Your task to perform on an android device: Play the new Drake video on YouTube Image 0: 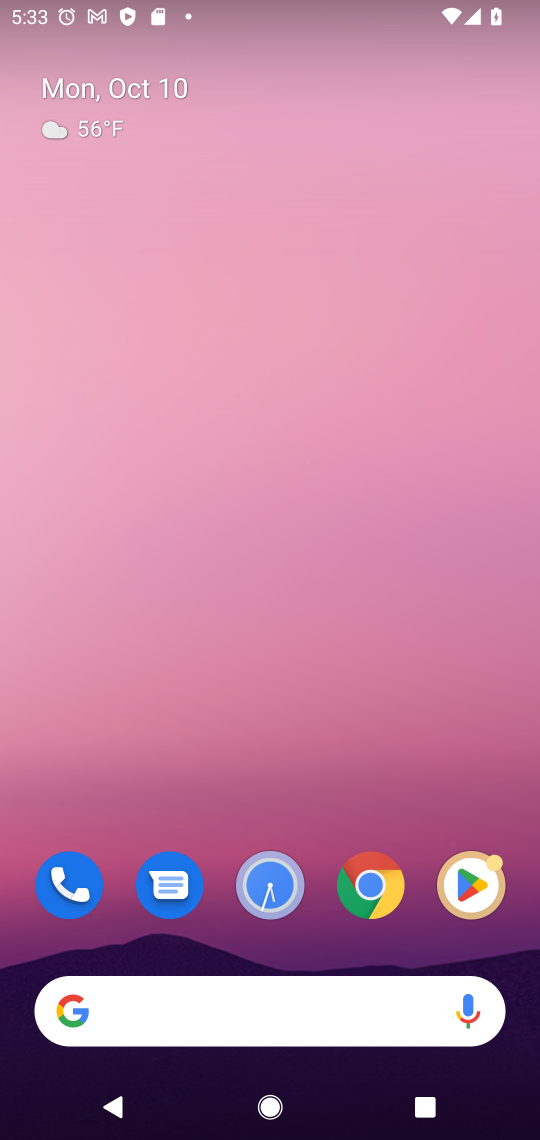
Step 0: click (191, 993)
Your task to perform on an android device: Play the new Drake video on YouTube Image 1: 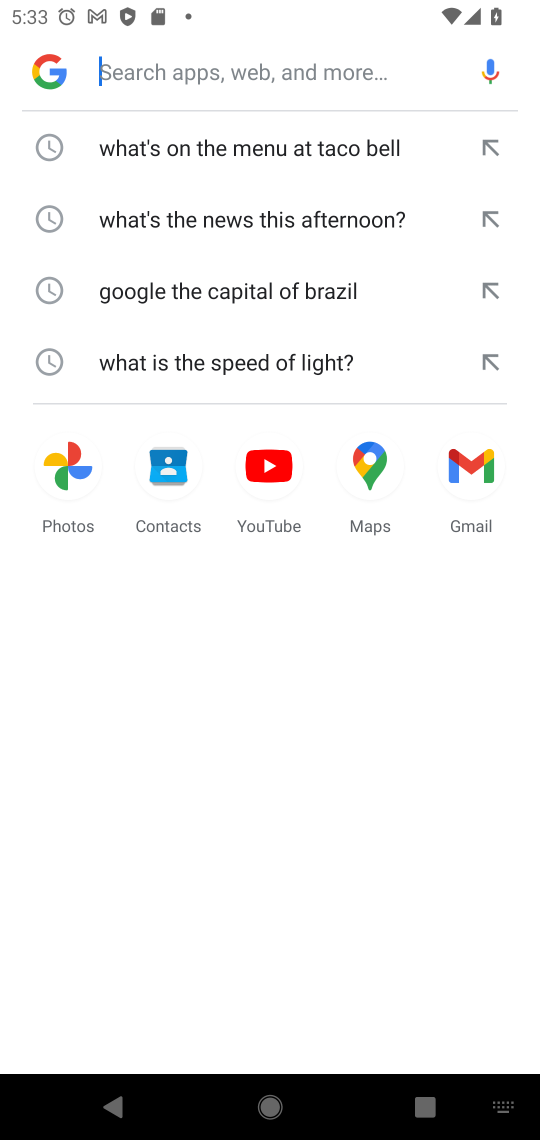
Step 1: click (276, 468)
Your task to perform on an android device: Play the new Drake video on YouTube Image 2: 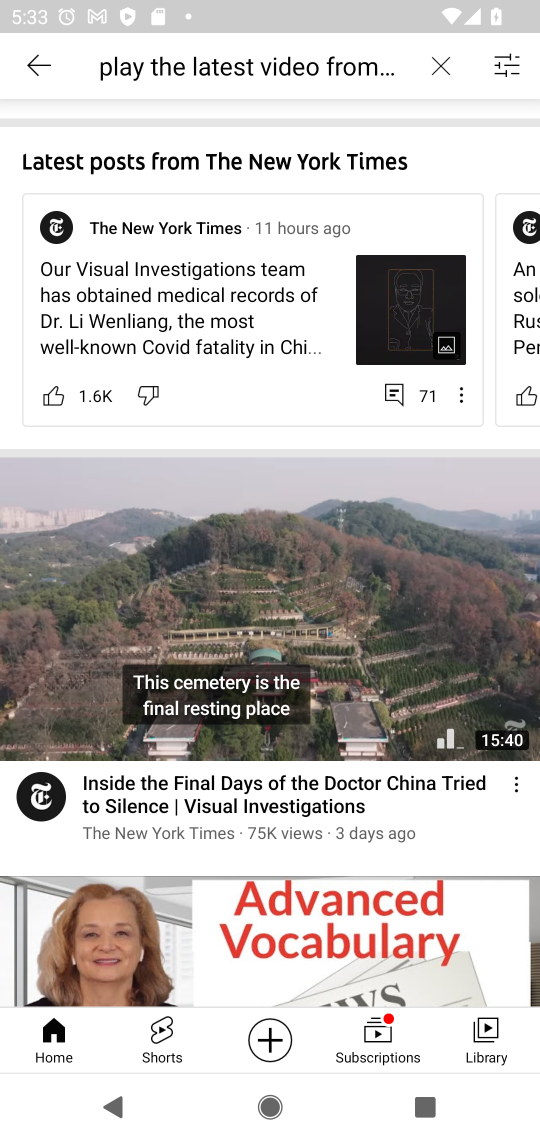
Step 2: click (440, 63)
Your task to perform on an android device: Play the new Drake video on YouTube Image 3: 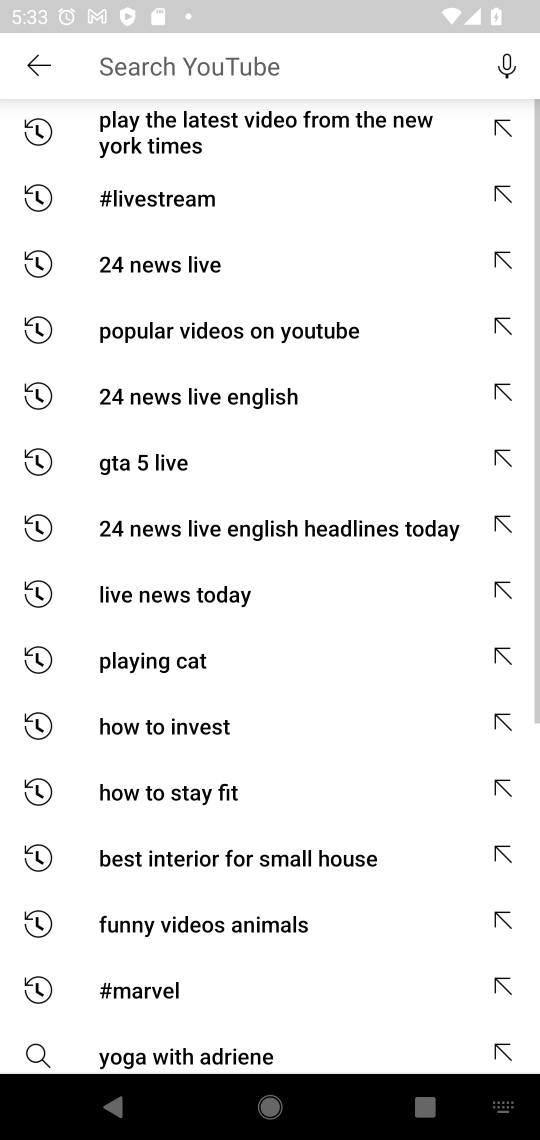
Step 3: click (386, 66)
Your task to perform on an android device: Play the new Drake video on YouTube Image 4: 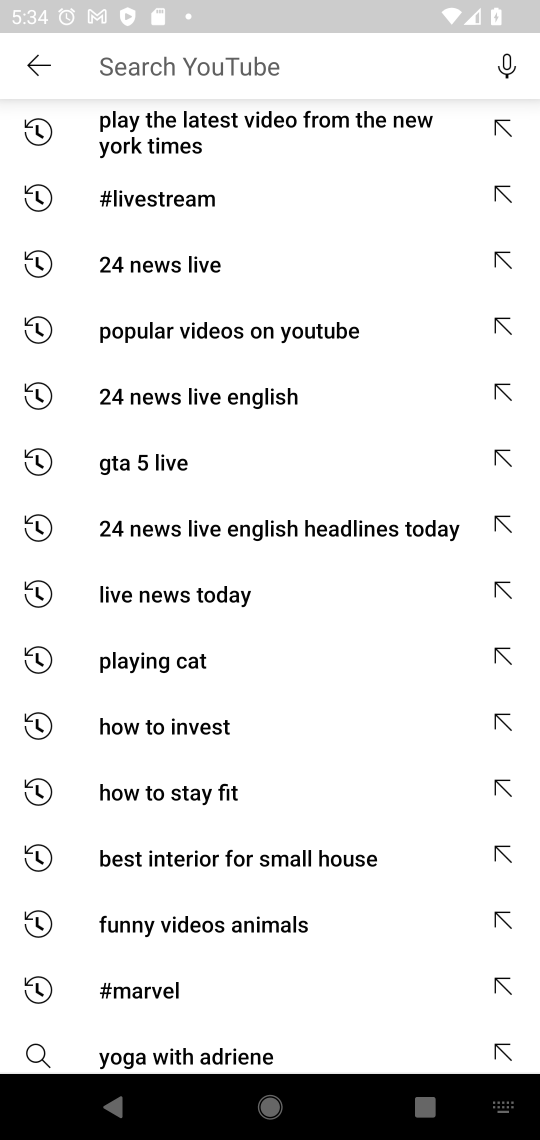
Step 4: type "Play the new Drake "
Your task to perform on an android device: Play the new Drake video on YouTube Image 5: 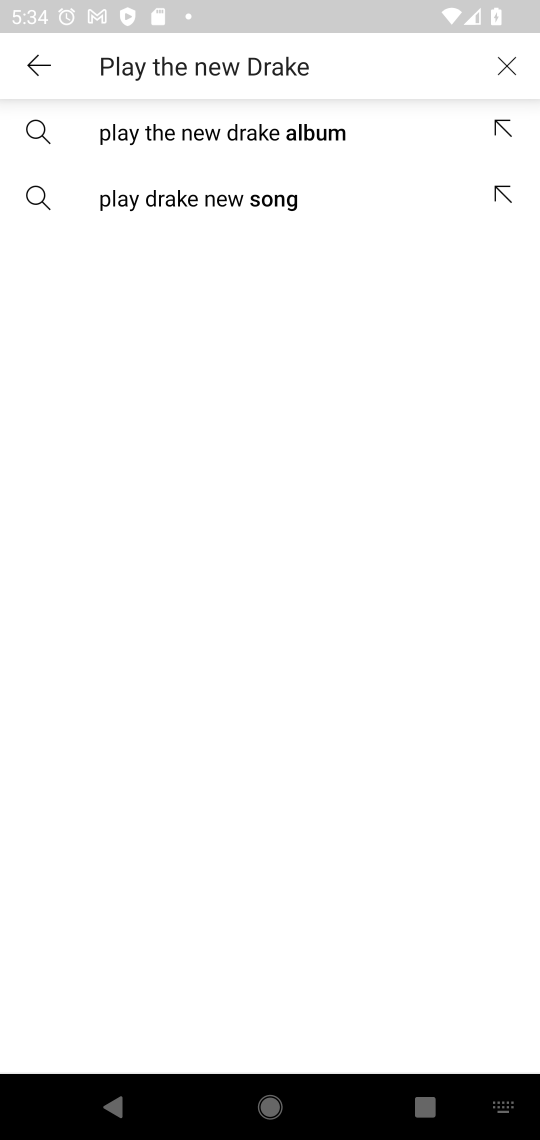
Step 5: click (186, 129)
Your task to perform on an android device: Play the new Drake video on YouTube Image 6: 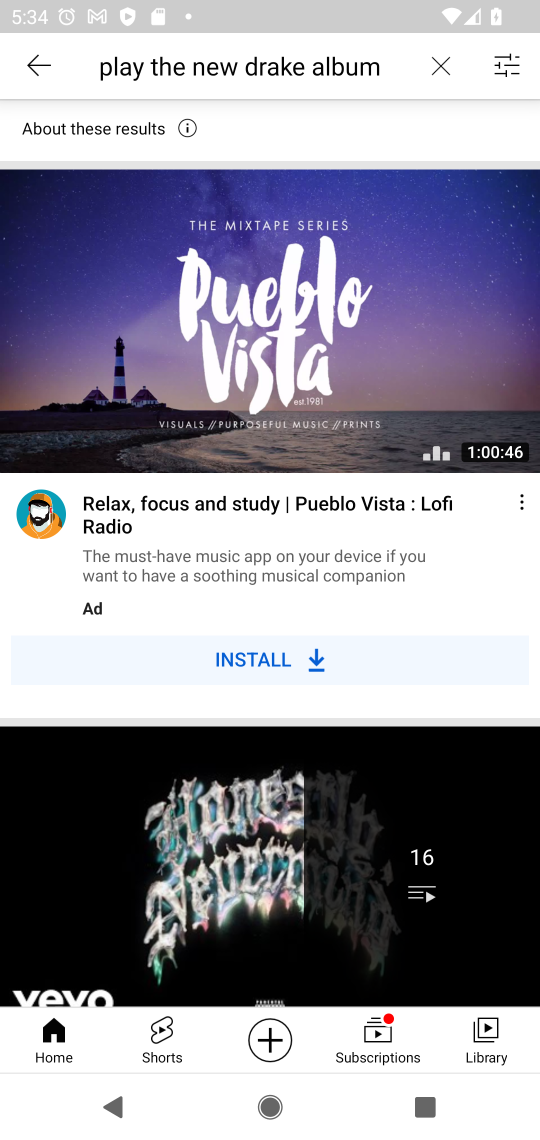
Step 6: click (268, 367)
Your task to perform on an android device: Play the new Drake video on YouTube Image 7: 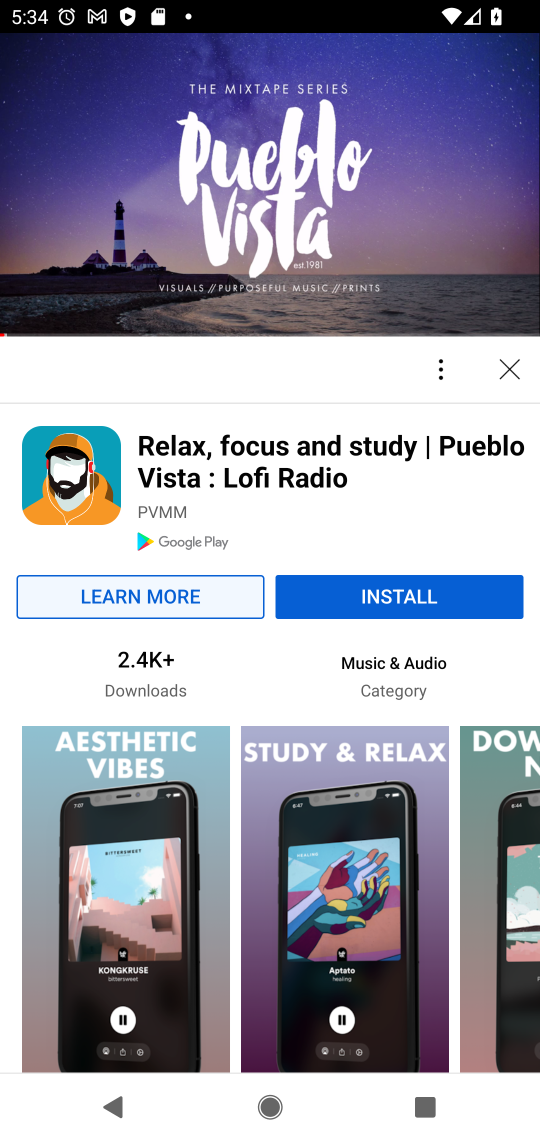
Step 7: click (263, 240)
Your task to perform on an android device: Play the new Drake video on YouTube Image 8: 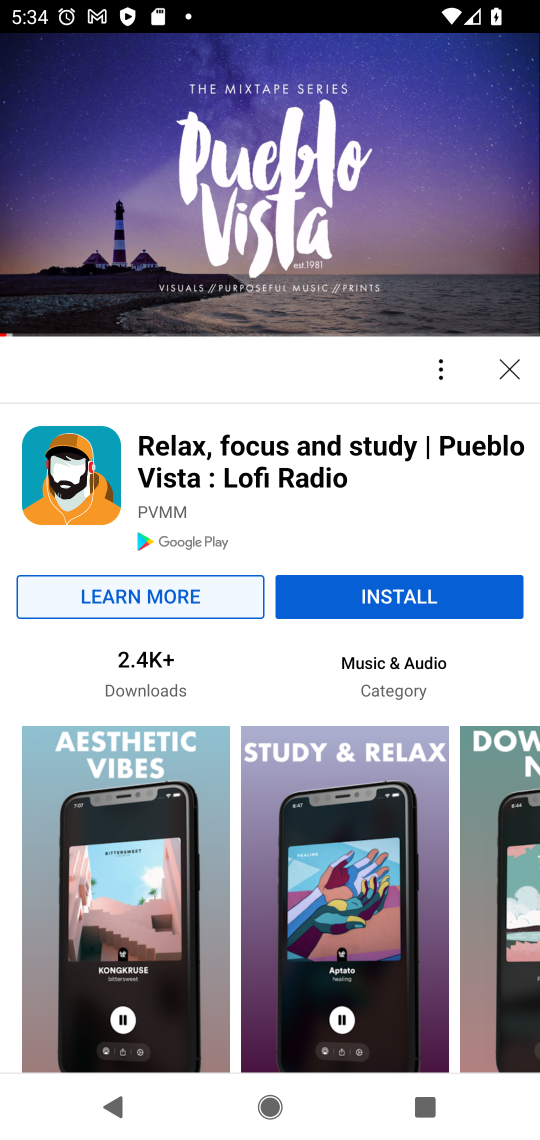
Step 8: task complete